Your task to perform on an android device: turn pop-ups off in chrome Image 0: 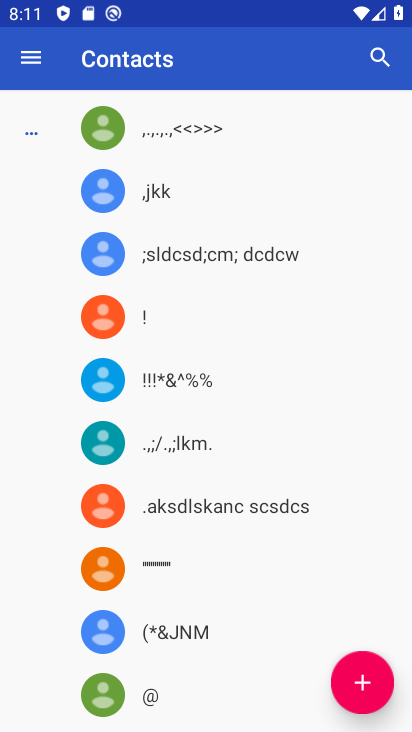
Step 0: press home button
Your task to perform on an android device: turn pop-ups off in chrome Image 1: 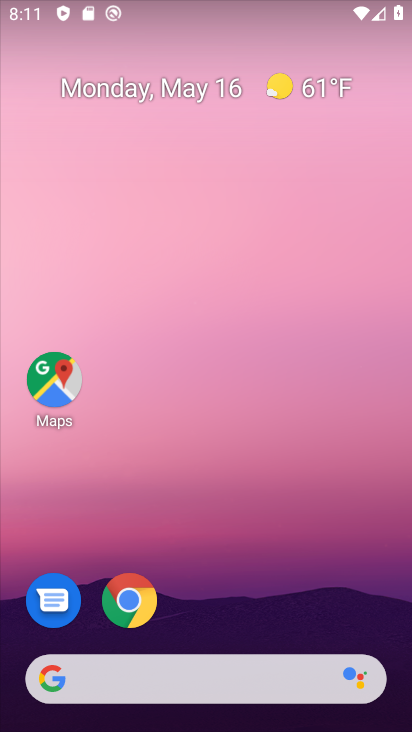
Step 1: click (143, 612)
Your task to perform on an android device: turn pop-ups off in chrome Image 2: 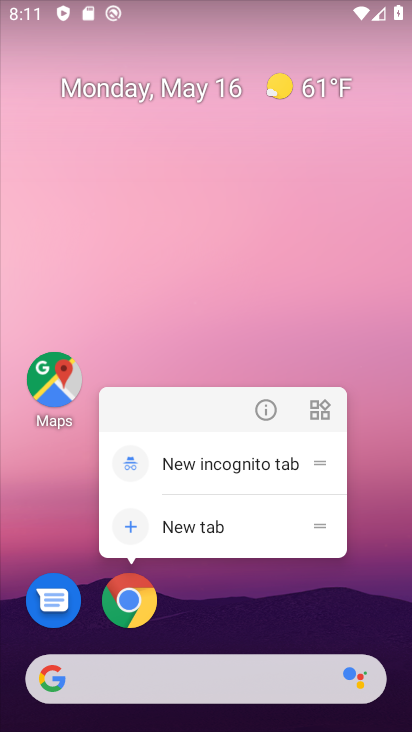
Step 2: click (140, 602)
Your task to perform on an android device: turn pop-ups off in chrome Image 3: 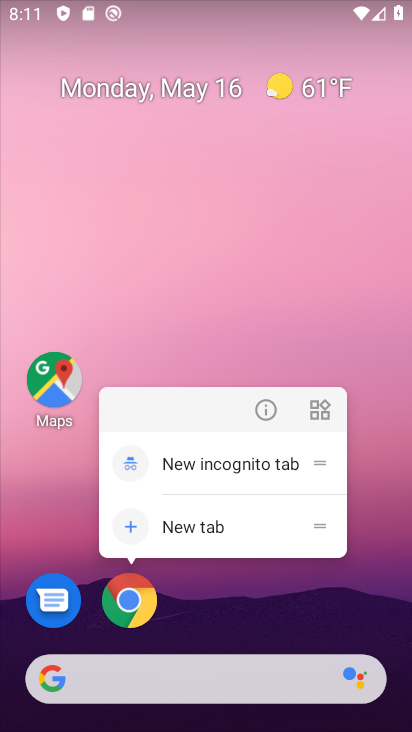
Step 3: click (141, 607)
Your task to perform on an android device: turn pop-ups off in chrome Image 4: 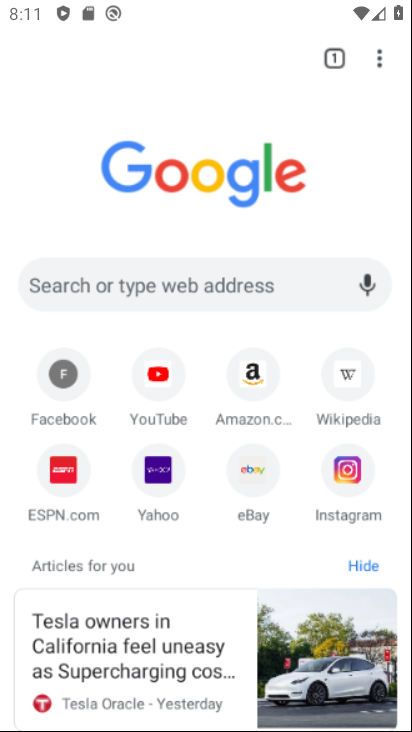
Step 4: click (372, 52)
Your task to perform on an android device: turn pop-ups off in chrome Image 5: 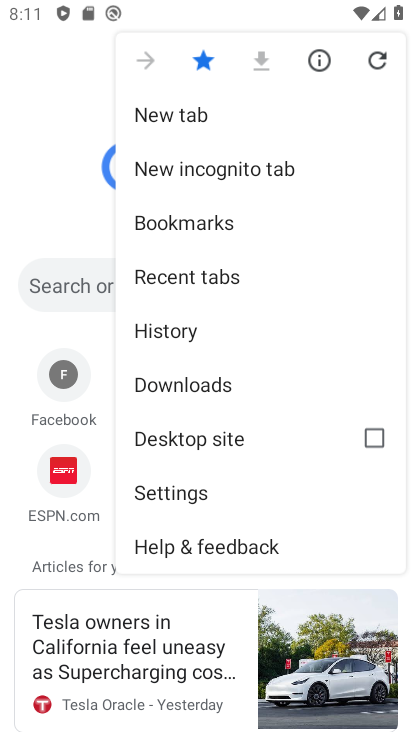
Step 5: click (240, 499)
Your task to perform on an android device: turn pop-ups off in chrome Image 6: 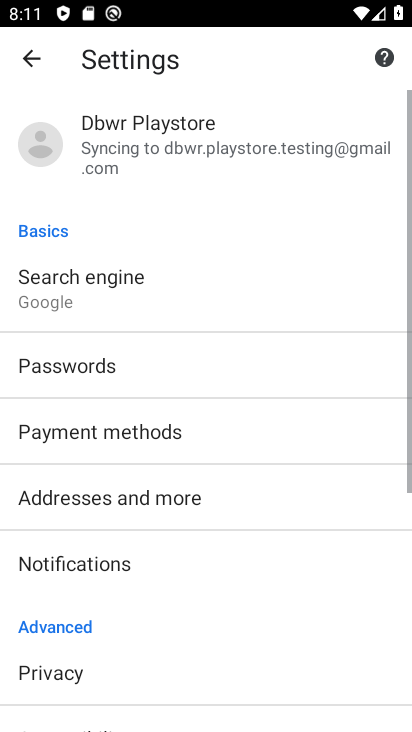
Step 6: drag from (136, 630) to (117, 556)
Your task to perform on an android device: turn pop-ups off in chrome Image 7: 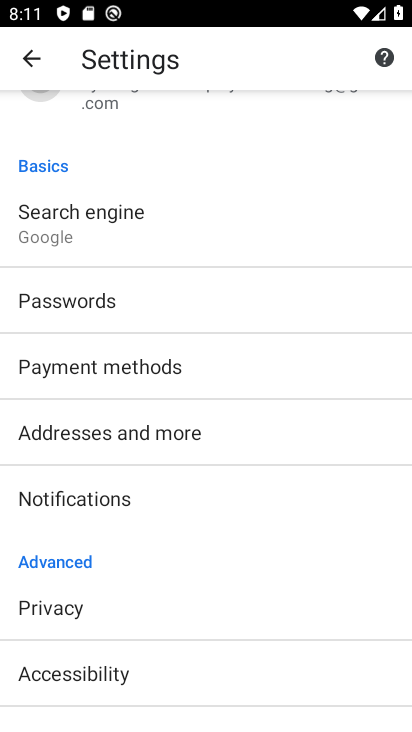
Step 7: drag from (111, 625) to (112, 546)
Your task to perform on an android device: turn pop-ups off in chrome Image 8: 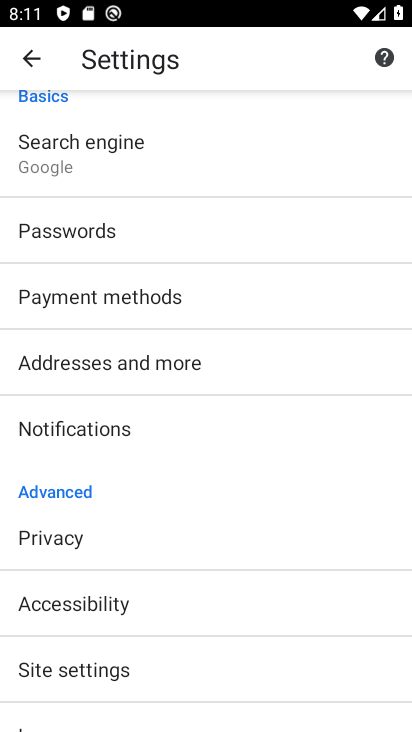
Step 8: click (123, 662)
Your task to perform on an android device: turn pop-ups off in chrome Image 9: 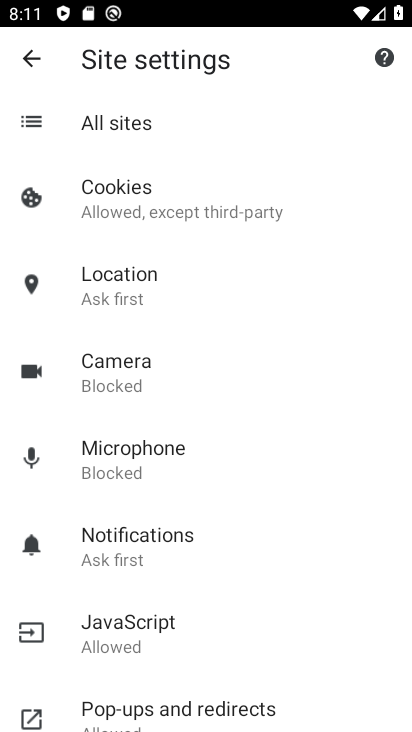
Step 9: click (179, 701)
Your task to perform on an android device: turn pop-ups off in chrome Image 10: 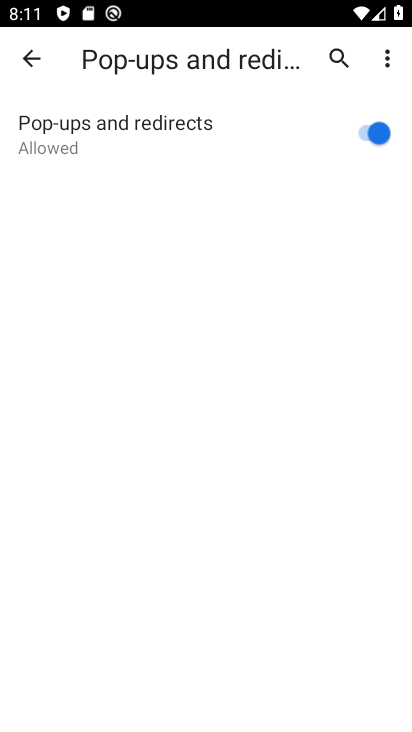
Step 10: click (377, 126)
Your task to perform on an android device: turn pop-ups off in chrome Image 11: 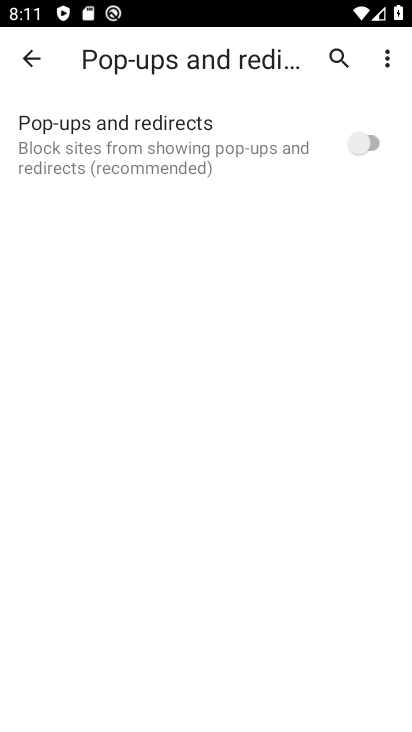
Step 11: task complete